Your task to perform on an android device: Go to calendar. Show me events next week Image 0: 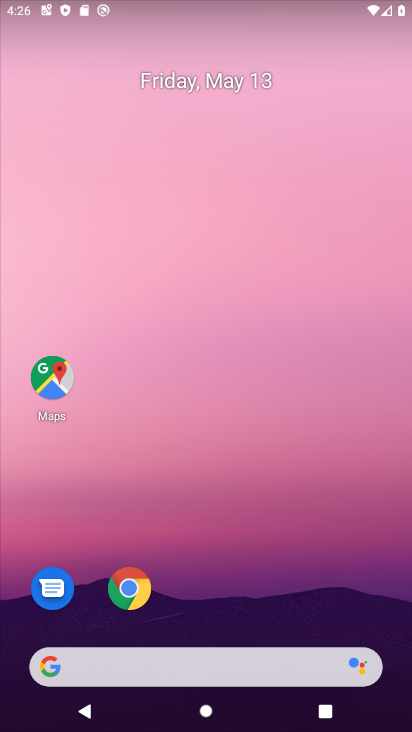
Step 0: click (239, 86)
Your task to perform on an android device: Go to calendar. Show me events next week Image 1: 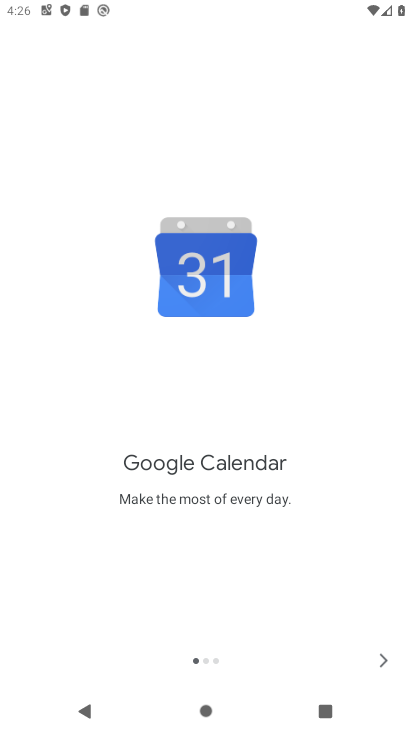
Step 1: click (390, 662)
Your task to perform on an android device: Go to calendar. Show me events next week Image 2: 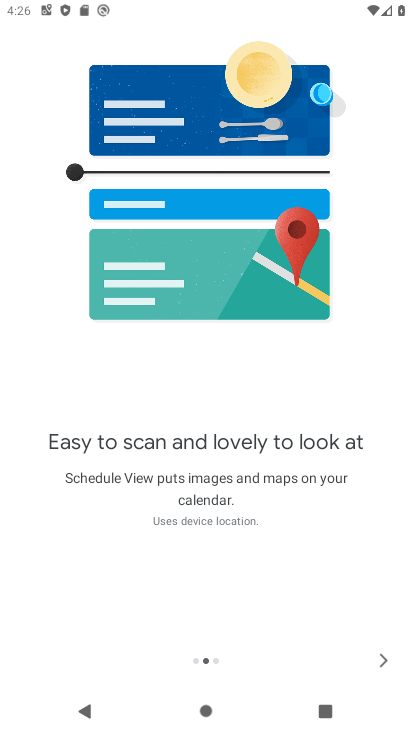
Step 2: click (390, 662)
Your task to perform on an android device: Go to calendar. Show me events next week Image 3: 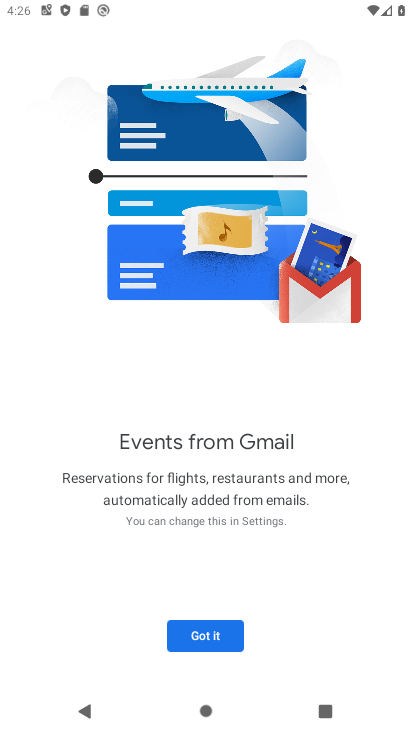
Step 3: click (390, 662)
Your task to perform on an android device: Go to calendar. Show me events next week Image 4: 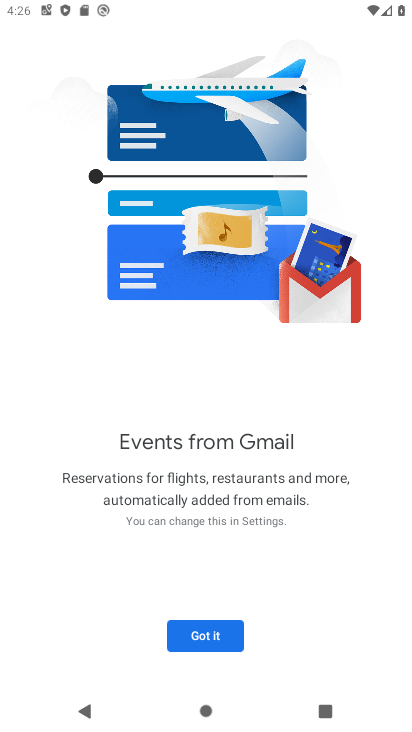
Step 4: click (229, 635)
Your task to perform on an android device: Go to calendar. Show me events next week Image 5: 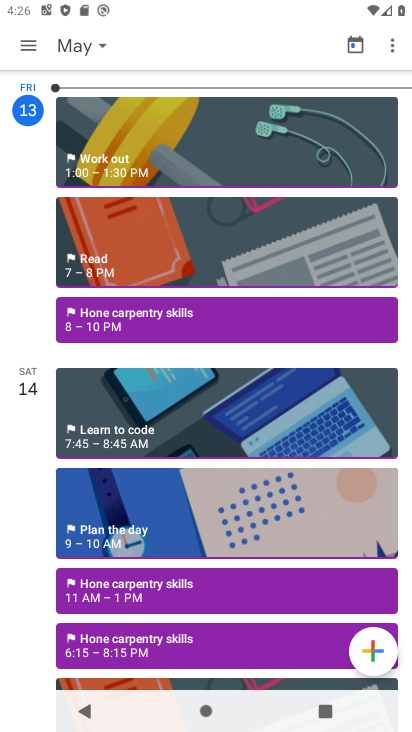
Step 5: click (95, 46)
Your task to perform on an android device: Go to calendar. Show me events next week Image 6: 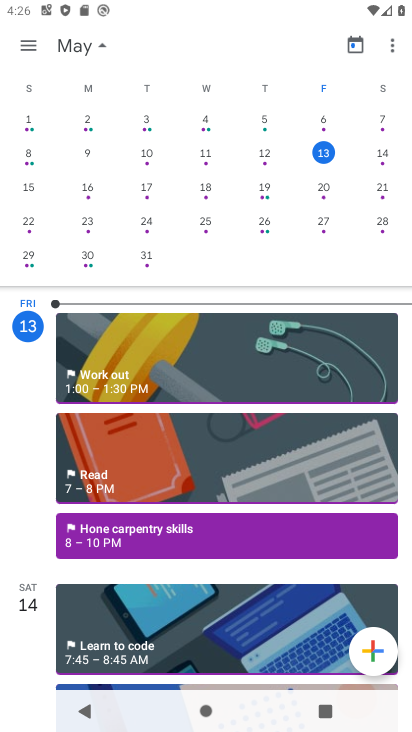
Step 6: click (325, 221)
Your task to perform on an android device: Go to calendar. Show me events next week Image 7: 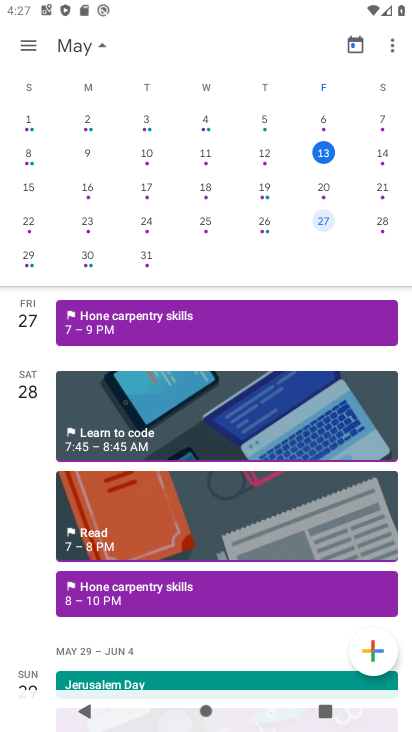
Step 7: task complete